Your task to perform on an android device: Open Amazon Image 0: 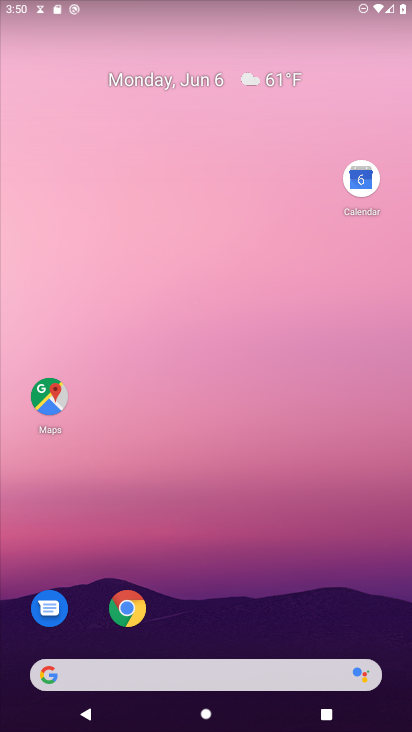
Step 0: drag from (276, 649) to (197, 8)
Your task to perform on an android device: Open Amazon Image 1: 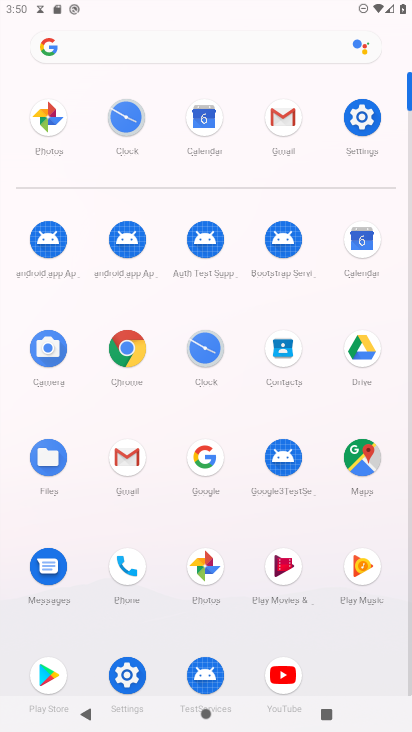
Step 1: click (109, 365)
Your task to perform on an android device: Open Amazon Image 2: 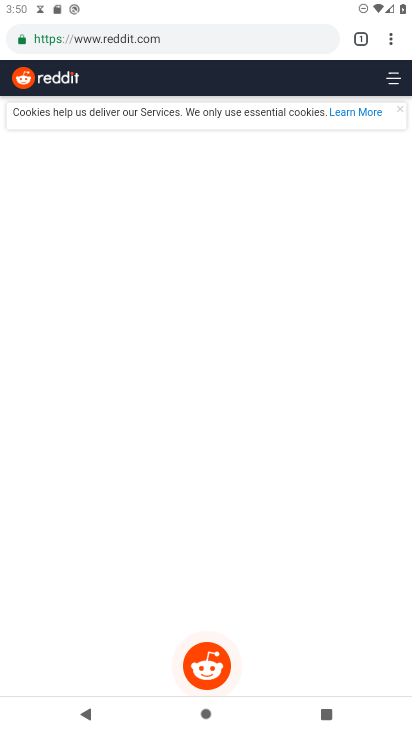
Step 2: click (226, 46)
Your task to perform on an android device: Open Amazon Image 3: 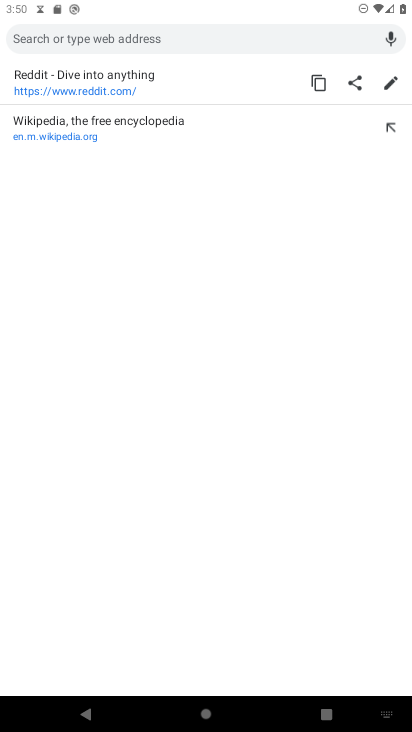
Step 3: type "amazon"
Your task to perform on an android device: Open Amazon Image 4: 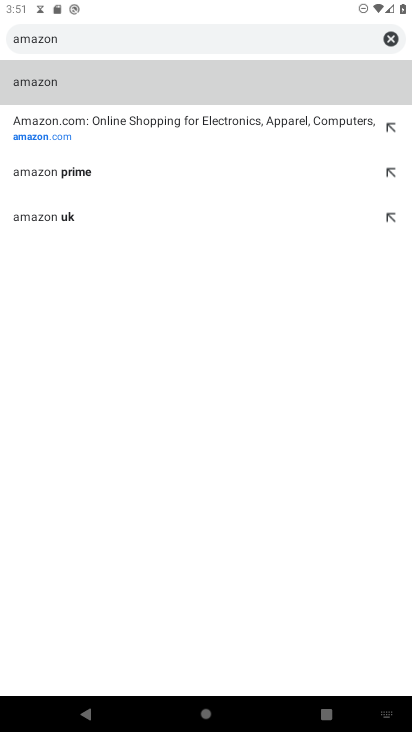
Step 4: click (77, 94)
Your task to perform on an android device: Open Amazon Image 5: 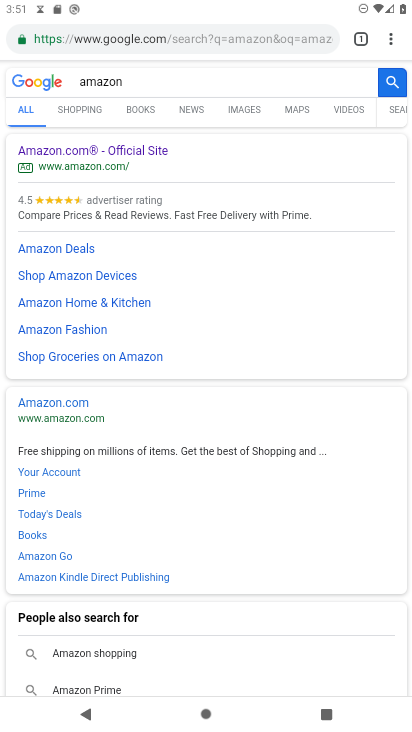
Step 5: click (70, 152)
Your task to perform on an android device: Open Amazon Image 6: 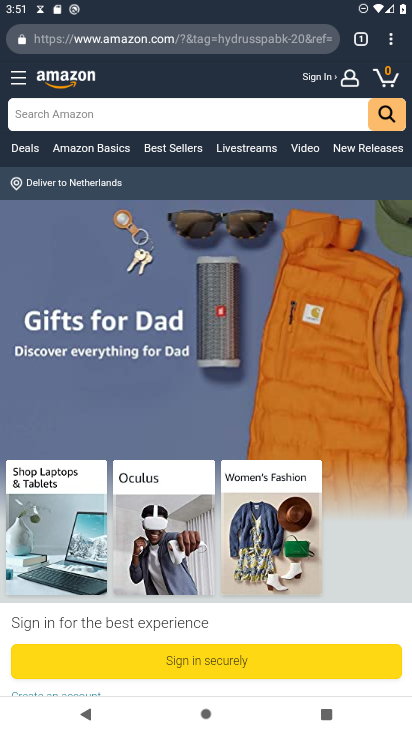
Step 6: task complete